Your task to perform on an android device: Open calendar and show me the second week of next month Image 0: 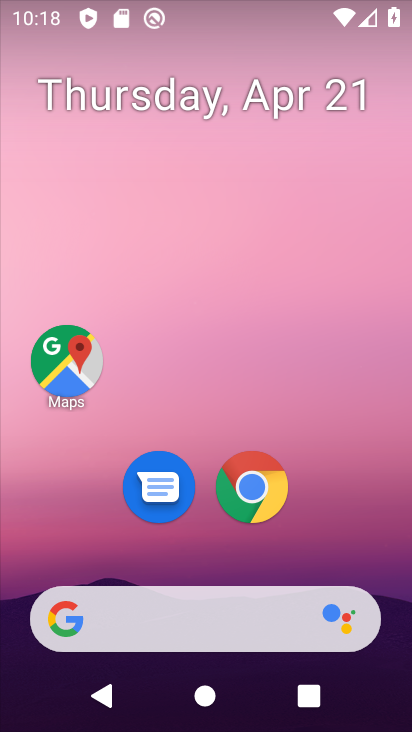
Step 0: drag from (354, 532) to (362, 38)
Your task to perform on an android device: Open calendar and show me the second week of next month Image 1: 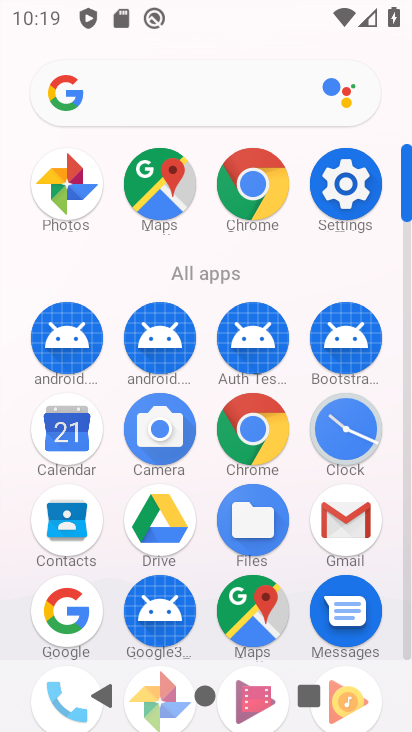
Step 1: click (64, 428)
Your task to perform on an android device: Open calendar and show me the second week of next month Image 2: 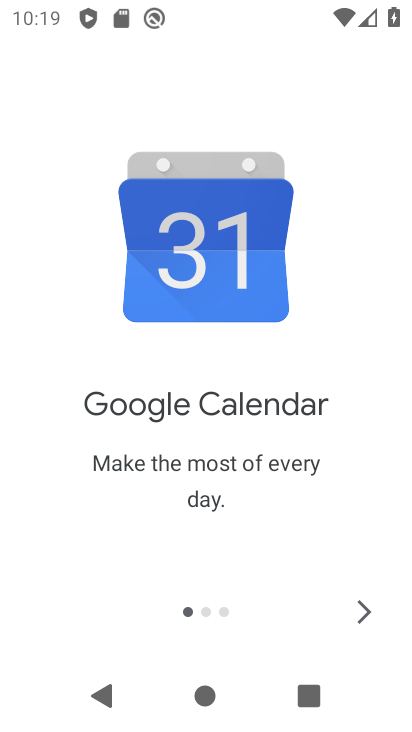
Step 2: click (362, 609)
Your task to perform on an android device: Open calendar and show me the second week of next month Image 3: 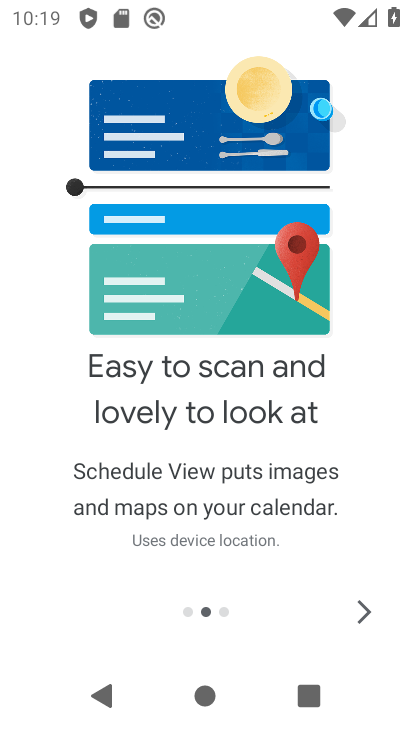
Step 3: click (362, 609)
Your task to perform on an android device: Open calendar and show me the second week of next month Image 4: 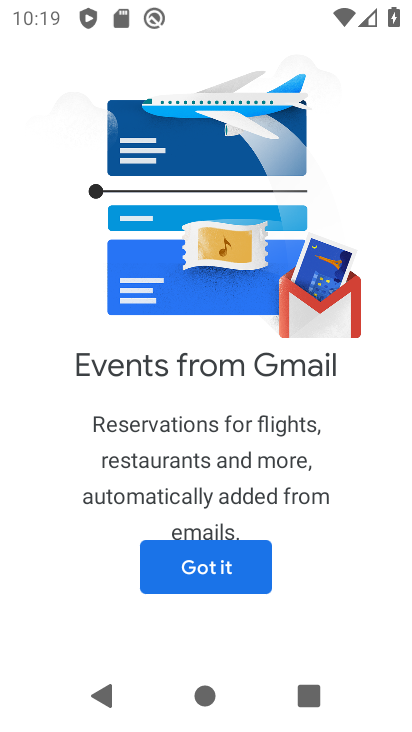
Step 4: click (253, 567)
Your task to perform on an android device: Open calendar and show me the second week of next month Image 5: 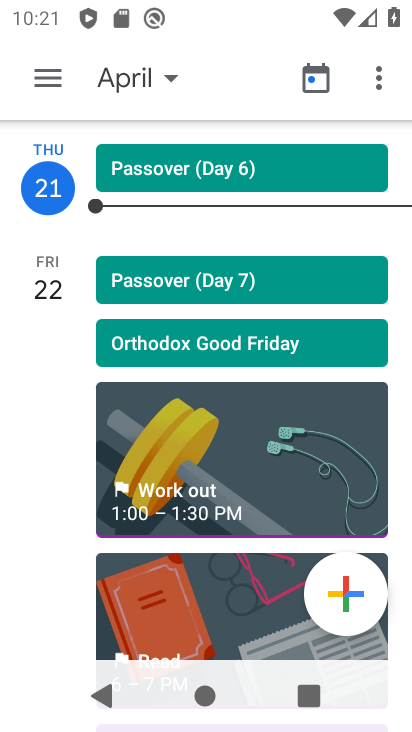
Step 5: click (165, 85)
Your task to perform on an android device: Open calendar and show me the second week of next month Image 6: 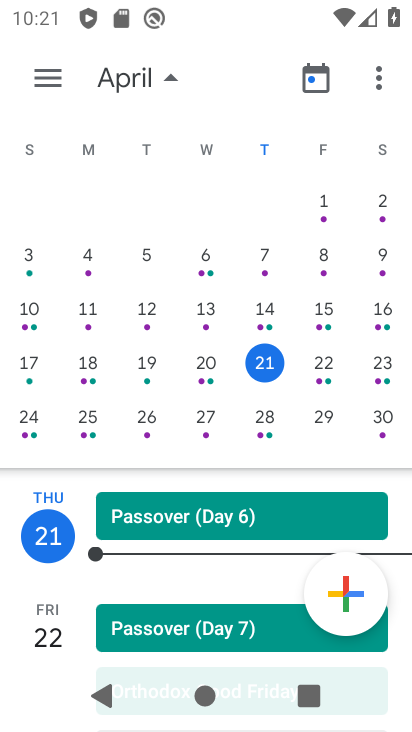
Step 6: drag from (385, 280) to (7, 295)
Your task to perform on an android device: Open calendar and show me the second week of next month Image 7: 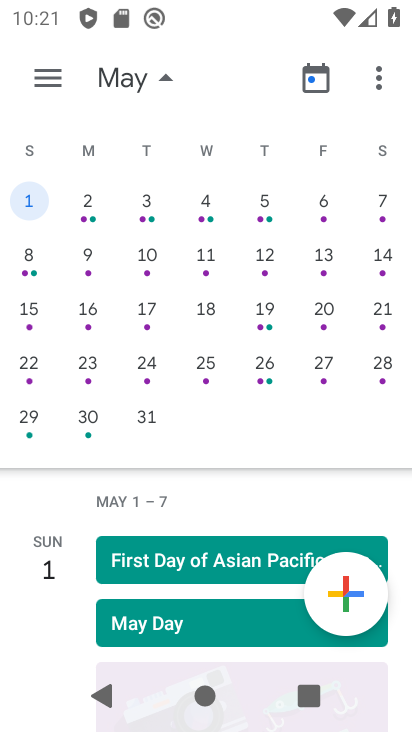
Step 7: click (210, 256)
Your task to perform on an android device: Open calendar and show me the second week of next month Image 8: 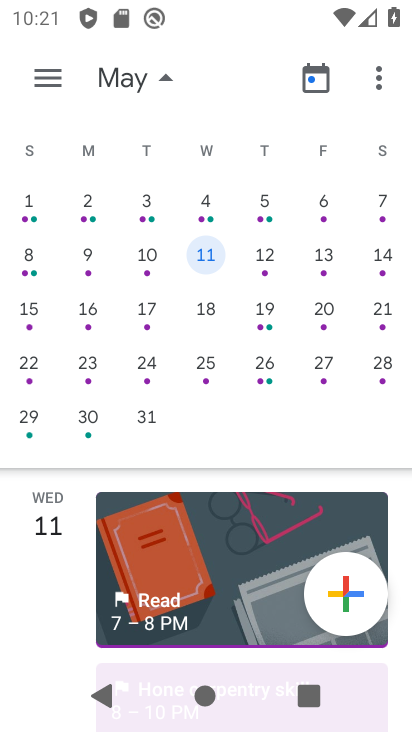
Step 8: task complete